Your task to perform on an android device: View the shopping cart on costco. Image 0: 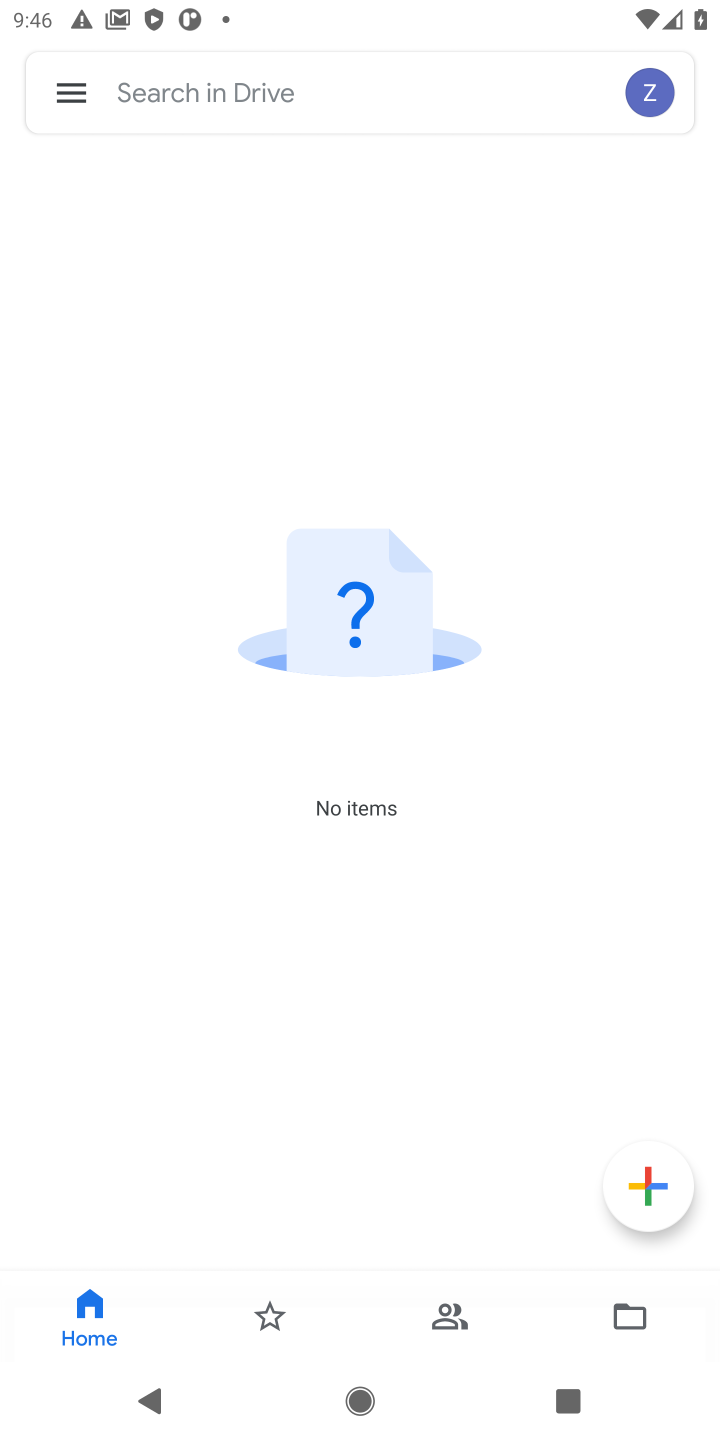
Step 0: press home button
Your task to perform on an android device: View the shopping cart on costco. Image 1: 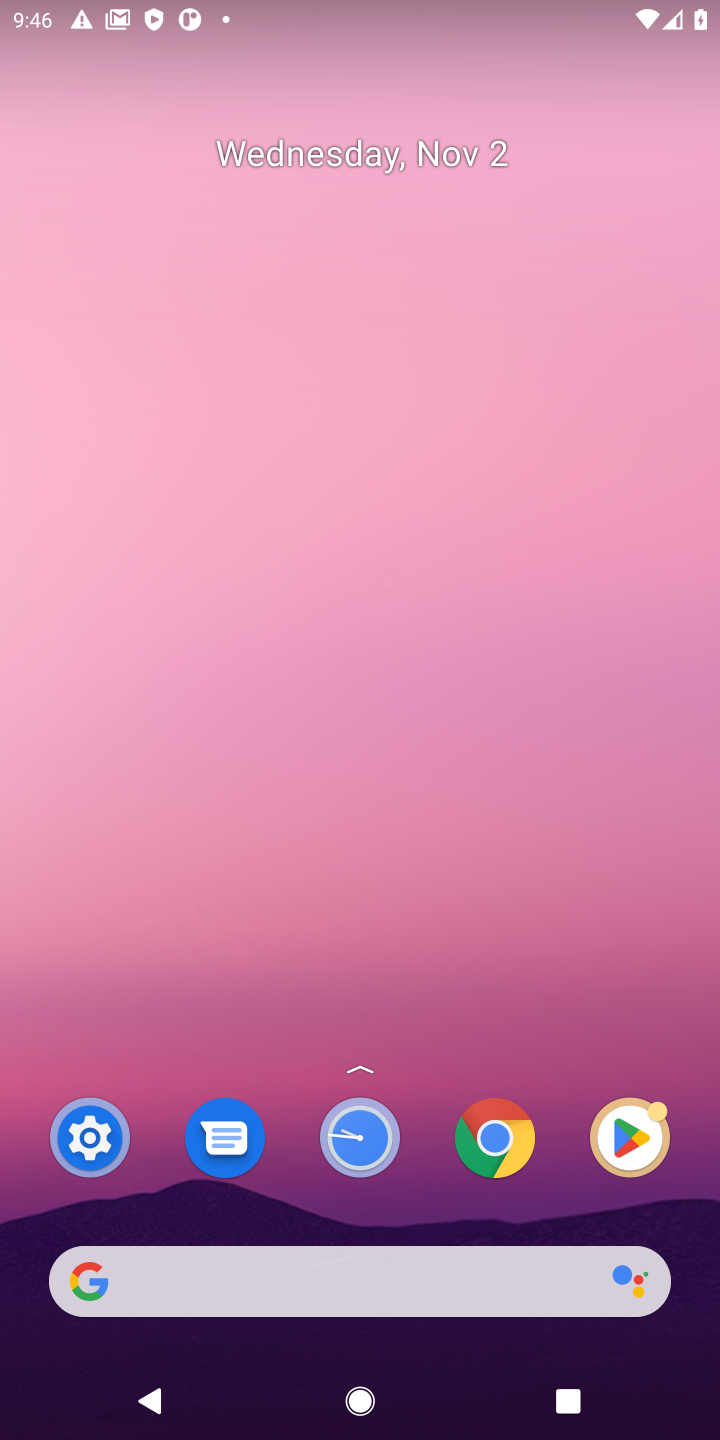
Step 1: click (286, 1263)
Your task to perform on an android device: View the shopping cart on costco. Image 2: 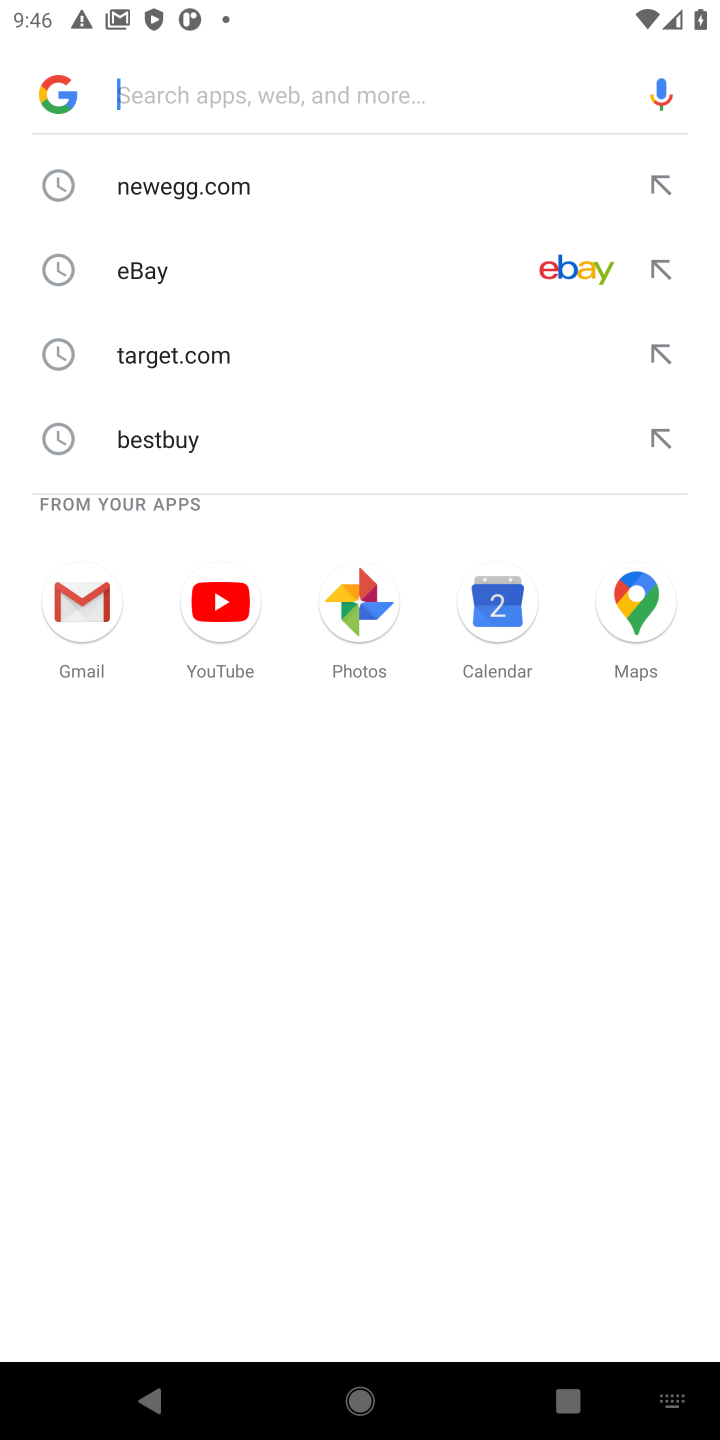
Step 2: type "costco"
Your task to perform on an android device: View the shopping cart on costco. Image 3: 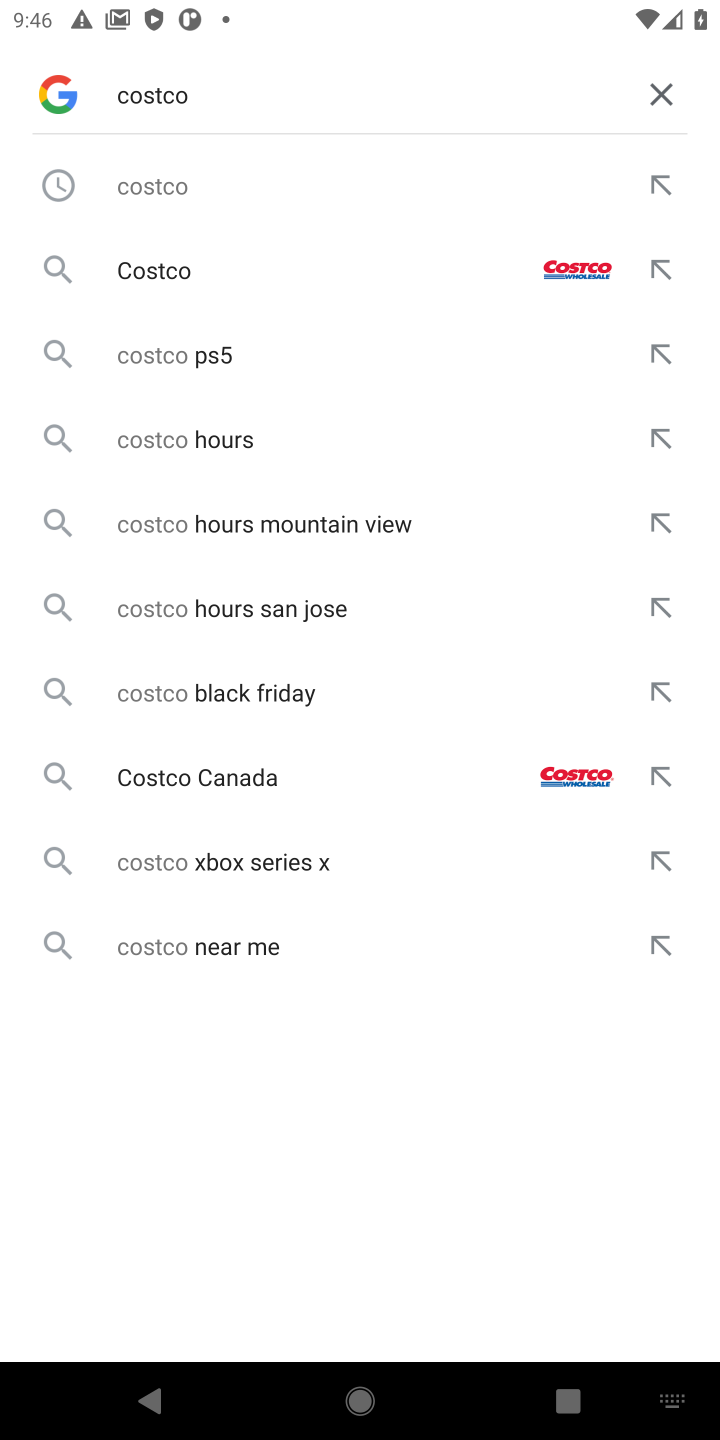
Step 3: click (157, 187)
Your task to perform on an android device: View the shopping cart on costco. Image 4: 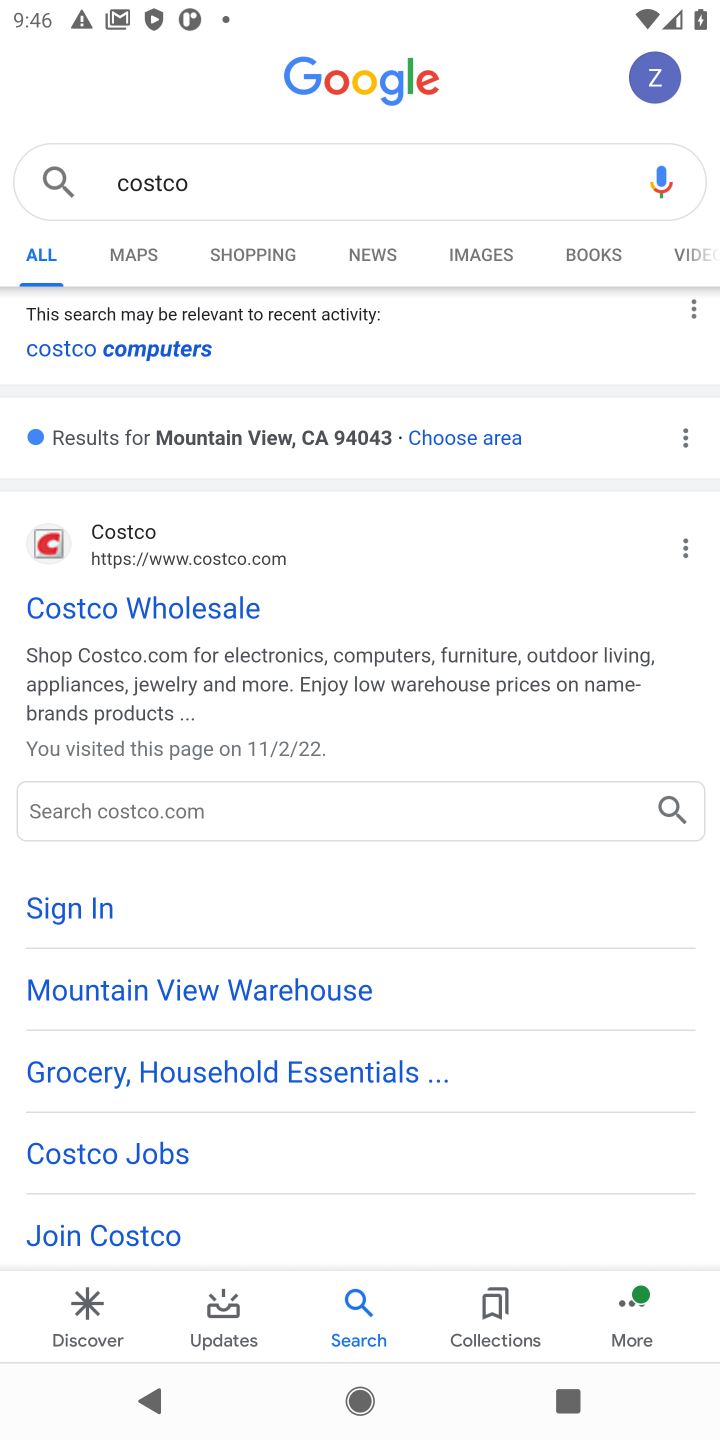
Step 4: click (150, 604)
Your task to perform on an android device: View the shopping cart on costco. Image 5: 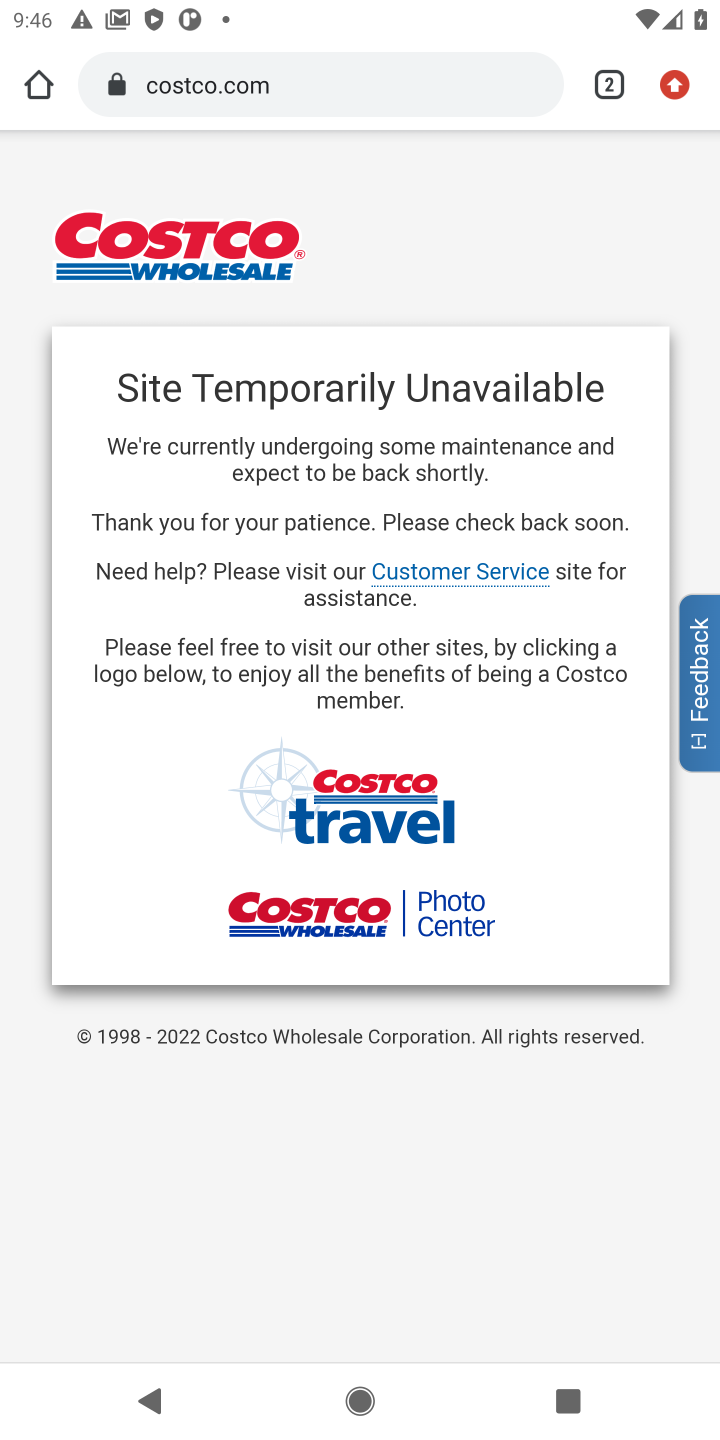
Step 5: task complete